Your task to perform on an android device: delete a single message in the gmail app Image 0: 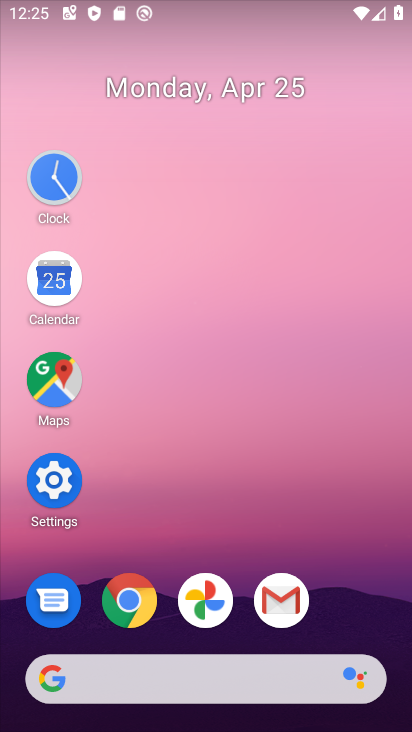
Step 0: click (274, 600)
Your task to perform on an android device: delete a single message in the gmail app Image 1: 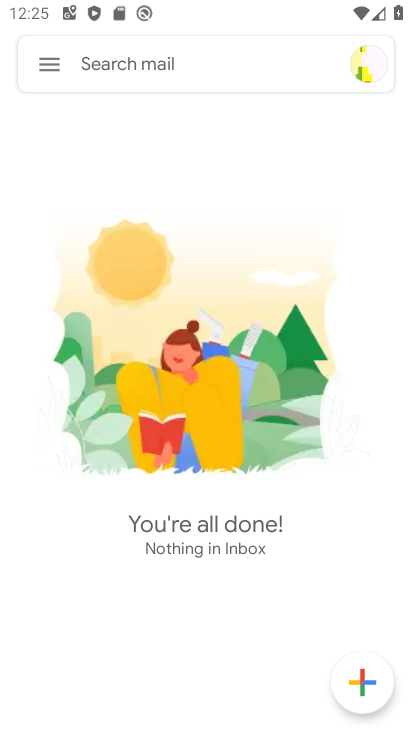
Step 1: click (37, 52)
Your task to perform on an android device: delete a single message in the gmail app Image 2: 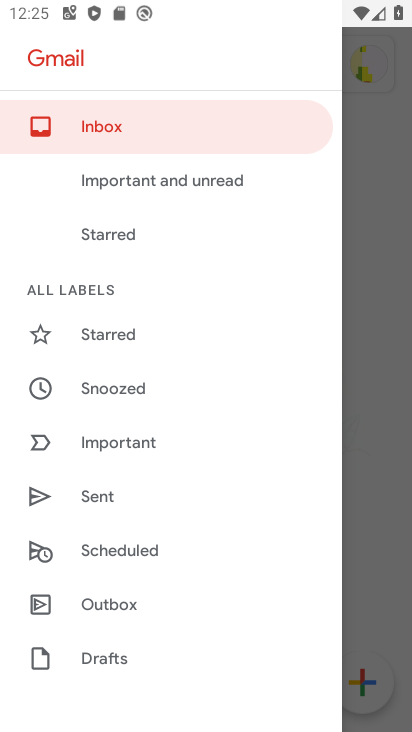
Step 2: drag from (140, 610) to (116, 224)
Your task to perform on an android device: delete a single message in the gmail app Image 3: 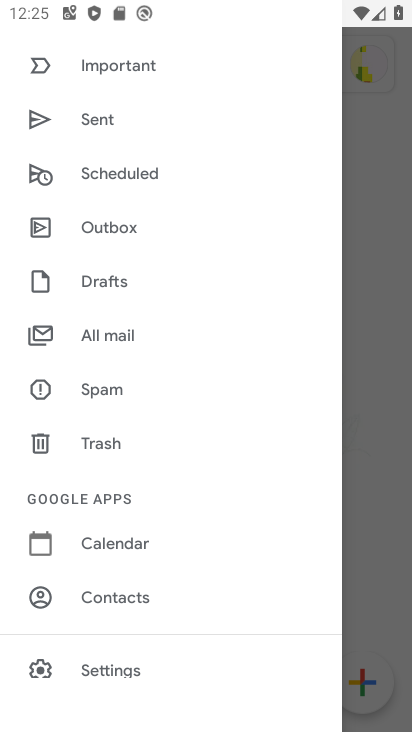
Step 3: click (93, 336)
Your task to perform on an android device: delete a single message in the gmail app Image 4: 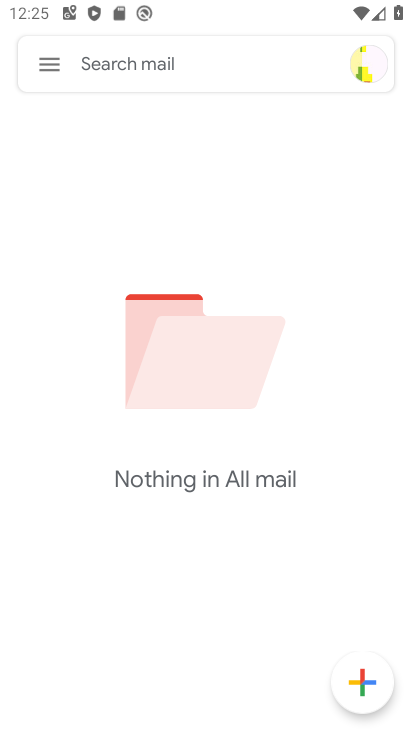
Step 4: task complete